Your task to perform on an android device: check out phone information Image 0: 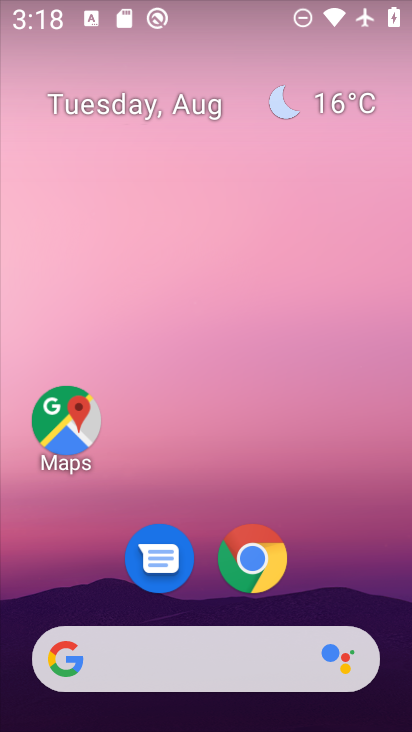
Step 0: drag from (182, 312) to (182, 148)
Your task to perform on an android device: check out phone information Image 1: 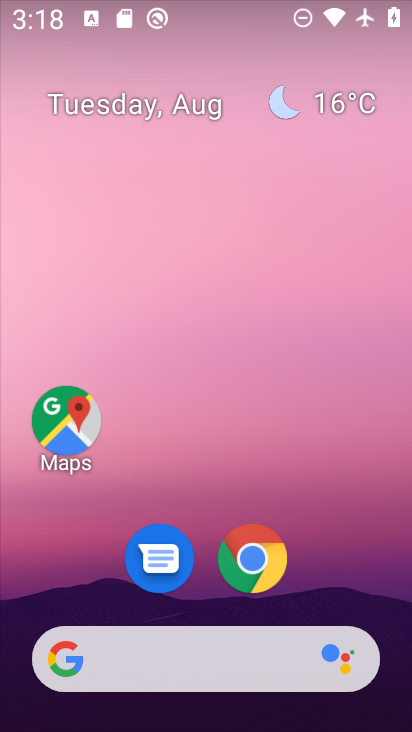
Step 1: drag from (205, 487) to (192, 0)
Your task to perform on an android device: check out phone information Image 2: 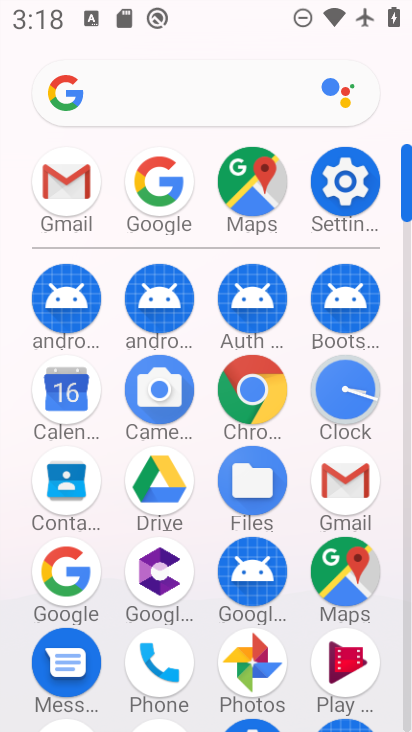
Step 2: click (335, 167)
Your task to perform on an android device: check out phone information Image 3: 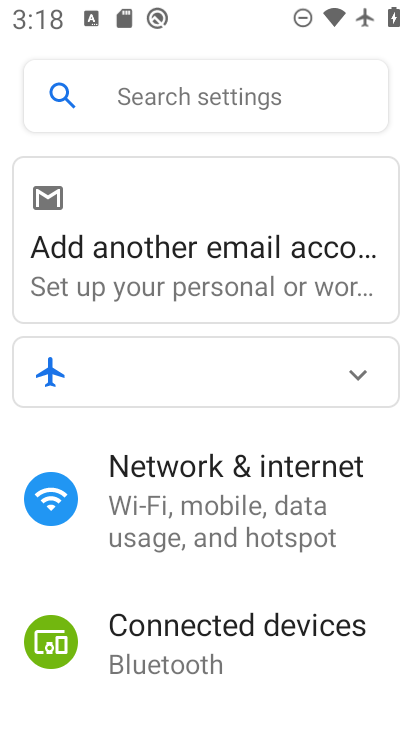
Step 3: drag from (234, 590) to (244, 249)
Your task to perform on an android device: check out phone information Image 4: 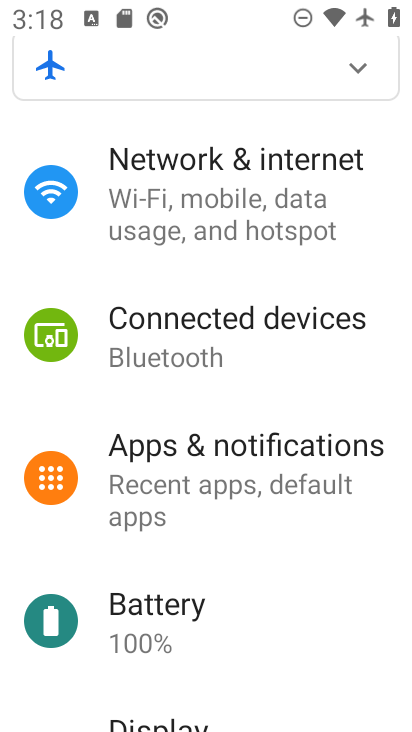
Step 4: drag from (282, 589) to (260, 244)
Your task to perform on an android device: check out phone information Image 5: 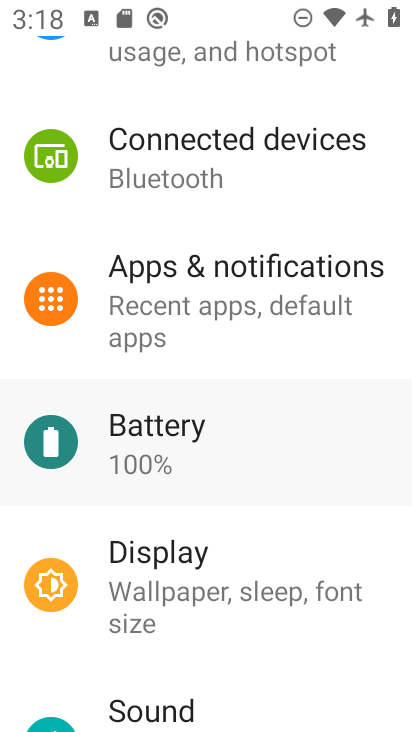
Step 5: click (228, 302)
Your task to perform on an android device: check out phone information Image 6: 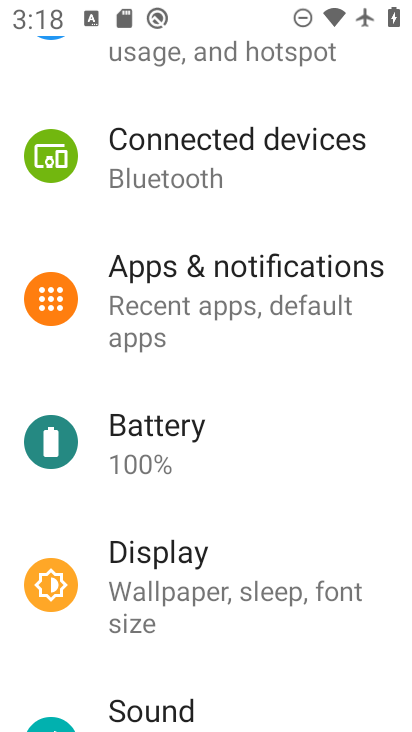
Step 6: drag from (229, 523) to (229, 234)
Your task to perform on an android device: check out phone information Image 7: 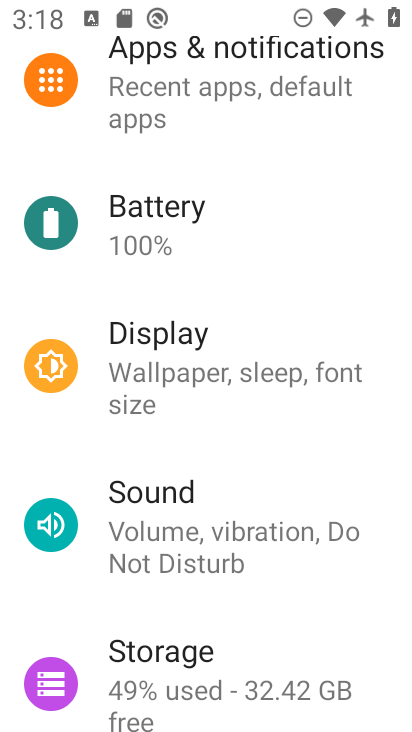
Step 7: drag from (263, 557) to (263, 258)
Your task to perform on an android device: check out phone information Image 8: 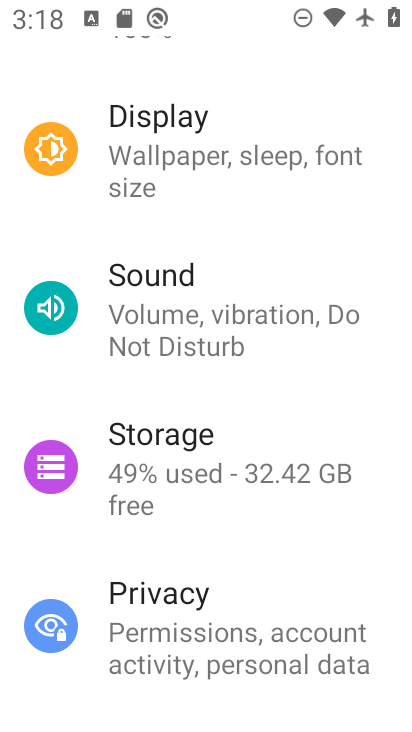
Step 8: drag from (259, 521) to (285, 174)
Your task to perform on an android device: check out phone information Image 9: 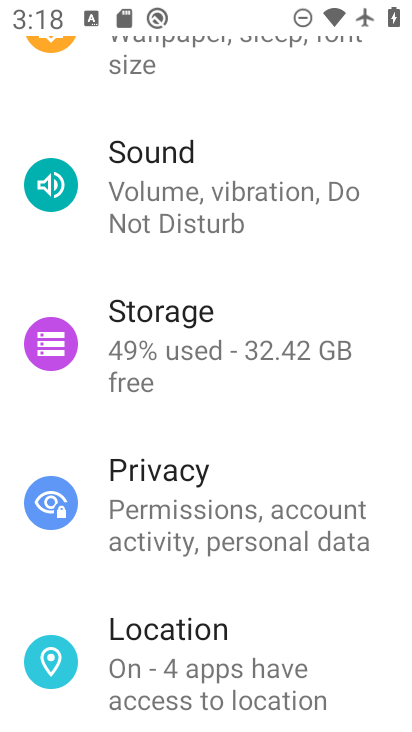
Step 9: drag from (219, 549) to (267, 140)
Your task to perform on an android device: check out phone information Image 10: 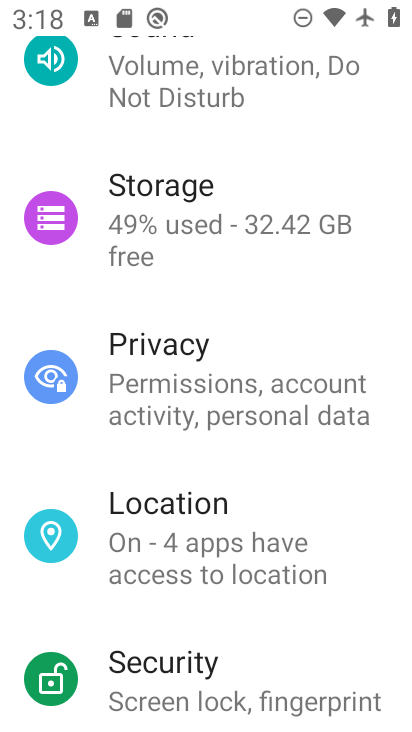
Step 10: drag from (232, 273) to (232, 207)
Your task to perform on an android device: check out phone information Image 11: 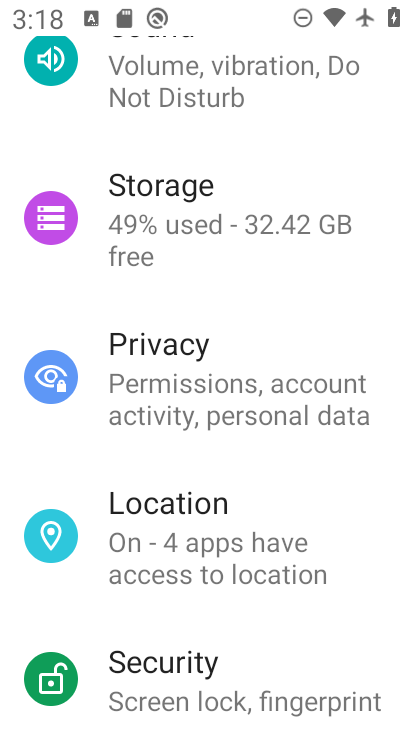
Step 11: drag from (230, 475) to (257, 188)
Your task to perform on an android device: check out phone information Image 12: 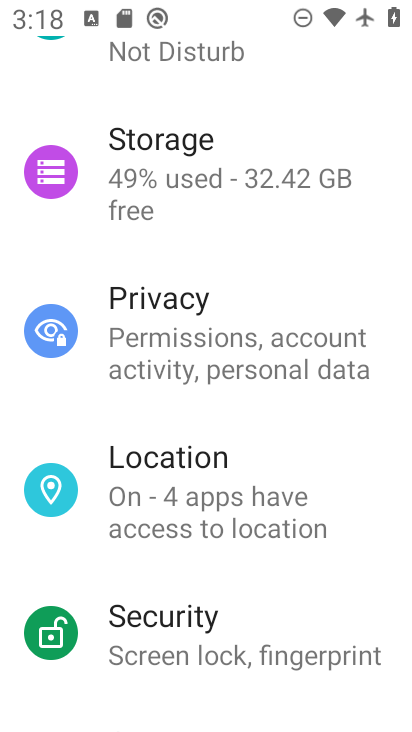
Step 12: drag from (254, 505) to (252, 170)
Your task to perform on an android device: check out phone information Image 13: 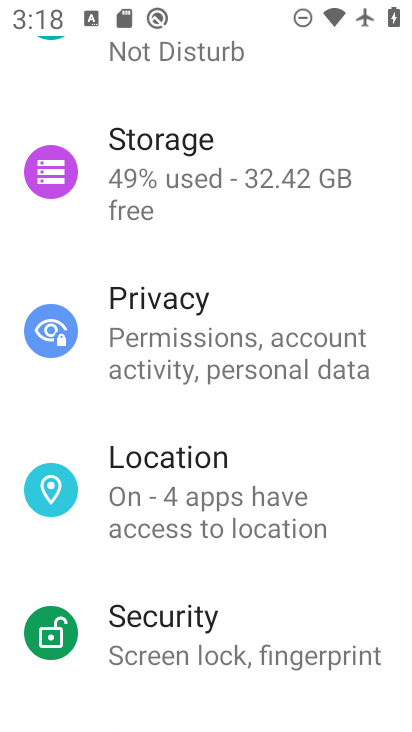
Step 13: drag from (252, 537) to (249, 250)
Your task to perform on an android device: check out phone information Image 14: 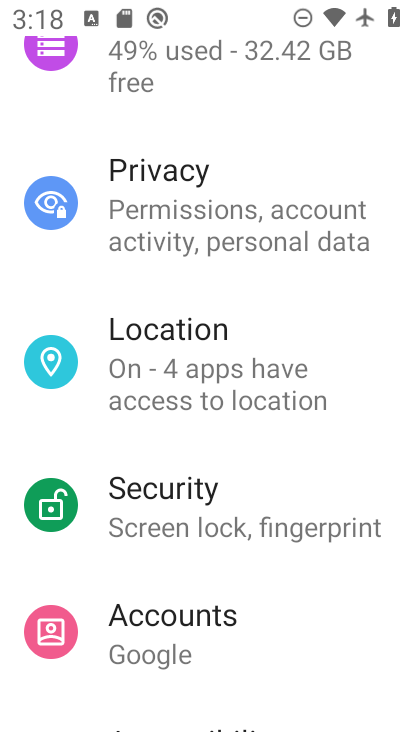
Step 14: drag from (211, 630) to (222, 214)
Your task to perform on an android device: check out phone information Image 15: 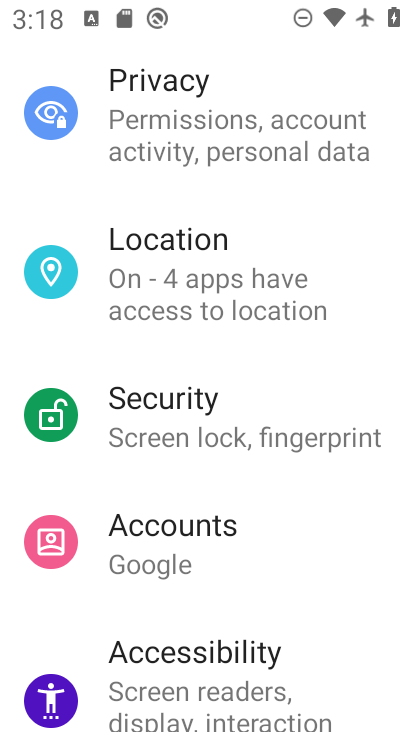
Step 15: drag from (221, 605) to (216, 148)
Your task to perform on an android device: check out phone information Image 16: 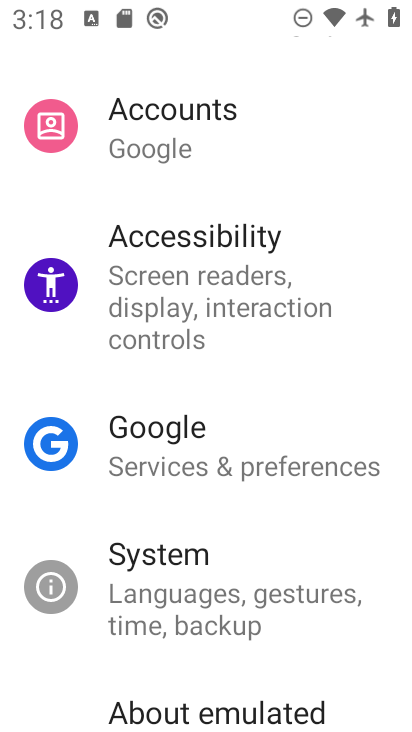
Step 16: drag from (210, 575) to (214, 125)
Your task to perform on an android device: check out phone information Image 17: 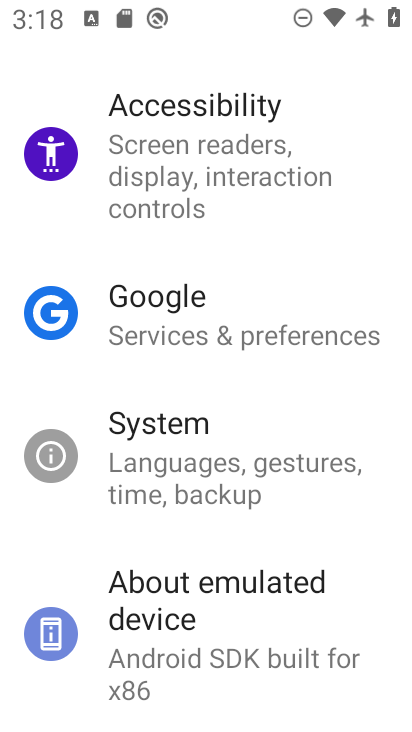
Step 17: click (196, 616)
Your task to perform on an android device: check out phone information Image 18: 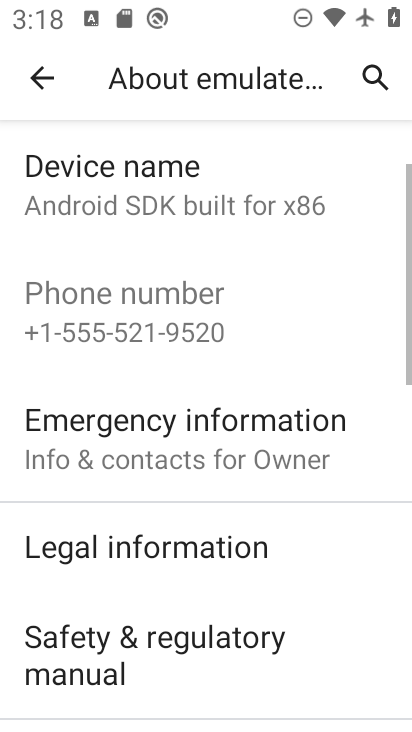
Step 18: task complete